Your task to perform on an android device: turn off javascript in the chrome app Image 0: 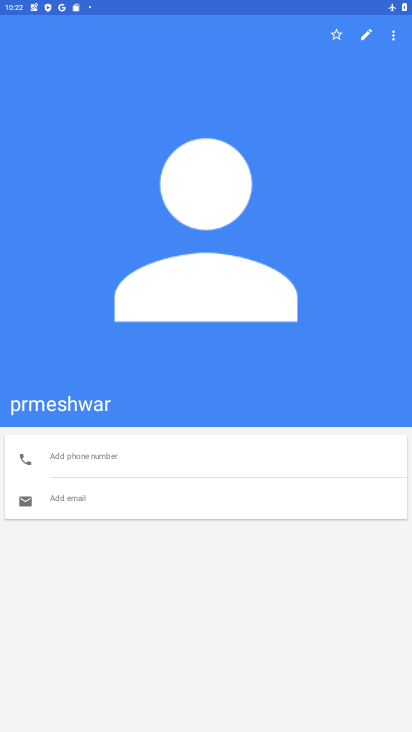
Step 0: press home button
Your task to perform on an android device: turn off javascript in the chrome app Image 1: 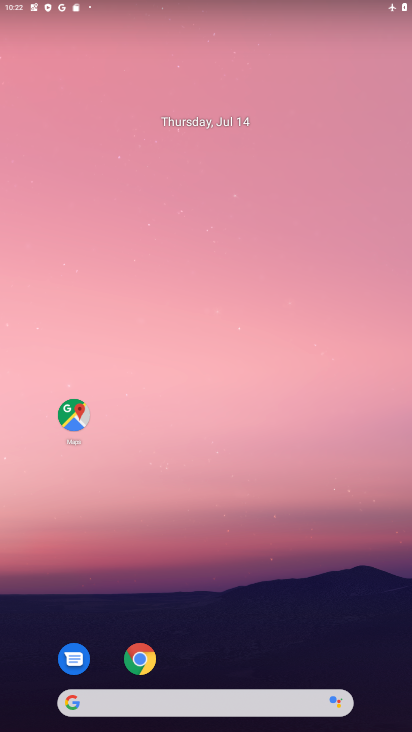
Step 1: drag from (277, 556) to (268, 35)
Your task to perform on an android device: turn off javascript in the chrome app Image 2: 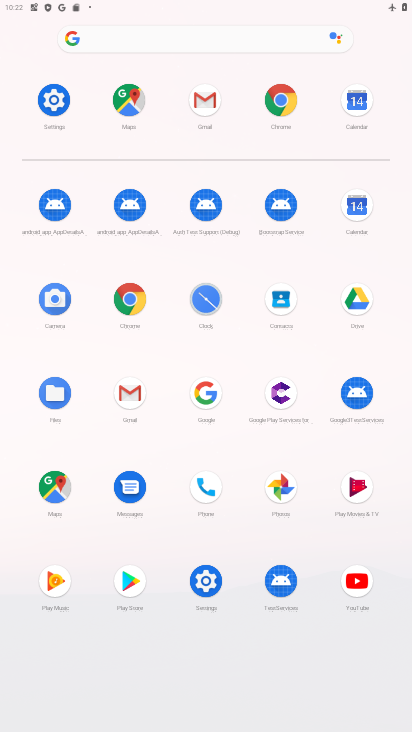
Step 2: click (129, 298)
Your task to perform on an android device: turn off javascript in the chrome app Image 3: 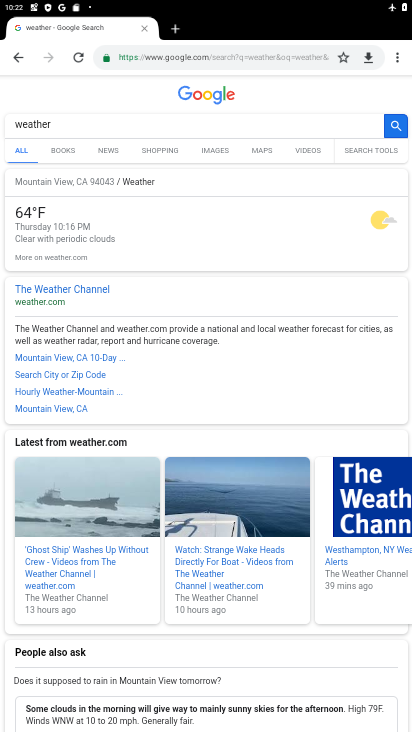
Step 3: drag from (395, 54) to (311, 362)
Your task to perform on an android device: turn off javascript in the chrome app Image 4: 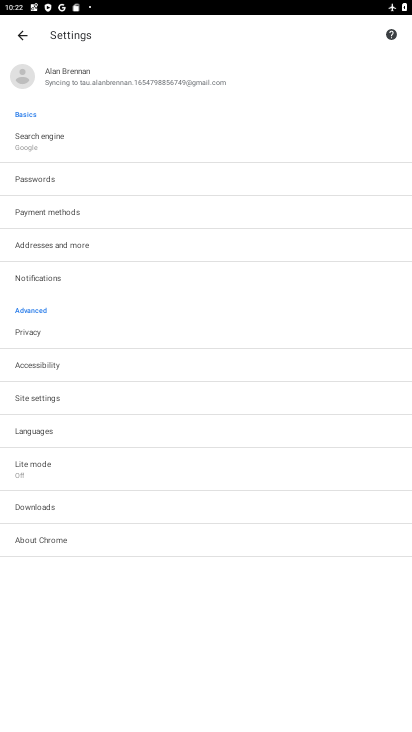
Step 4: click (19, 394)
Your task to perform on an android device: turn off javascript in the chrome app Image 5: 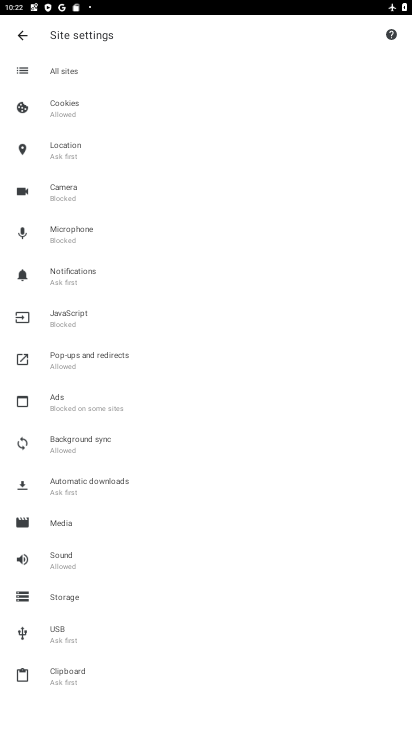
Step 5: click (86, 320)
Your task to perform on an android device: turn off javascript in the chrome app Image 6: 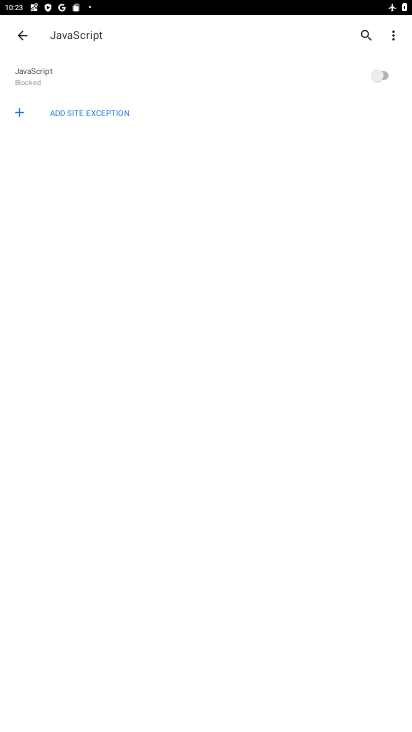
Step 6: task complete